Your task to perform on an android device: When is my next meeting? Image 0: 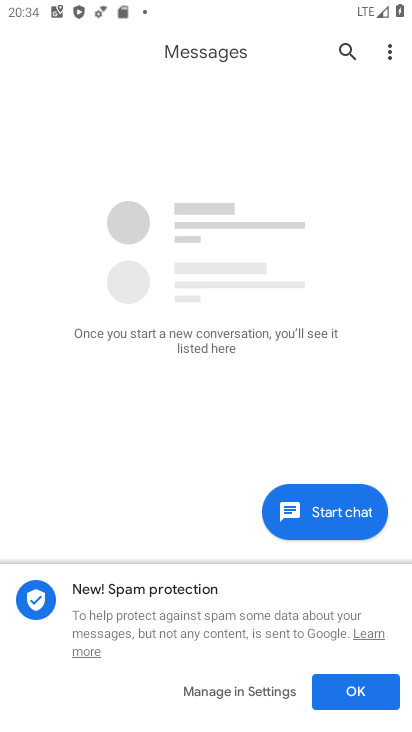
Step 0: press home button
Your task to perform on an android device: When is my next meeting? Image 1: 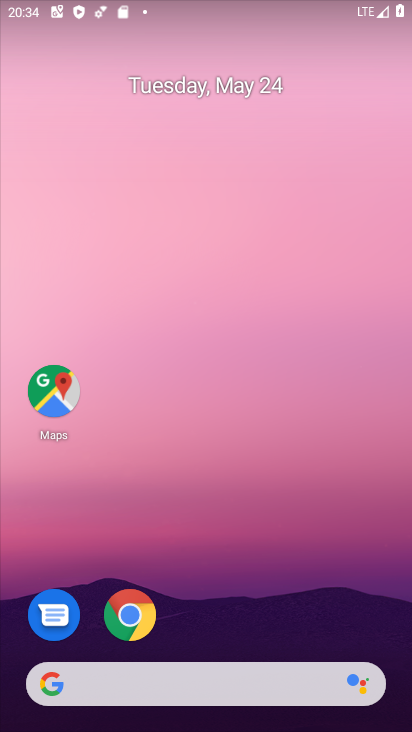
Step 1: drag from (236, 596) to (223, 230)
Your task to perform on an android device: When is my next meeting? Image 2: 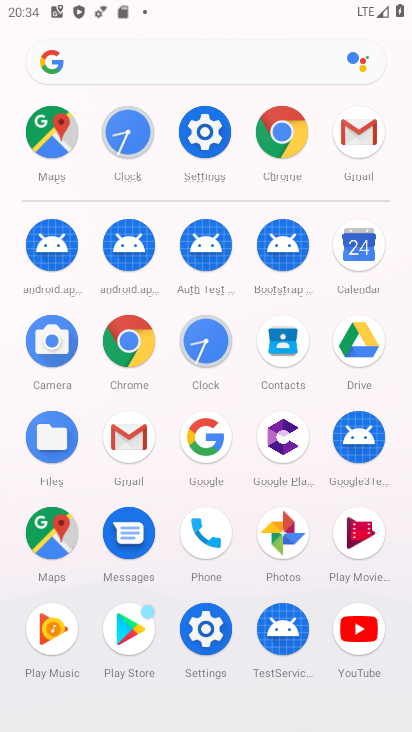
Step 2: click (363, 241)
Your task to perform on an android device: When is my next meeting? Image 3: 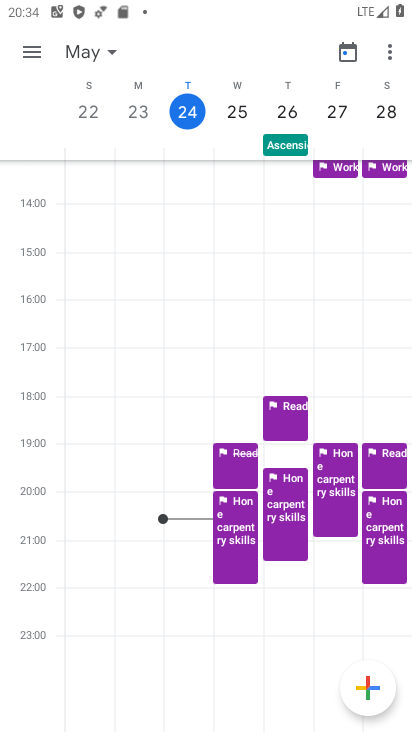
Step 3: click (31, 57)
Your task to perform on an android device: When is my next meeting? Image 4: 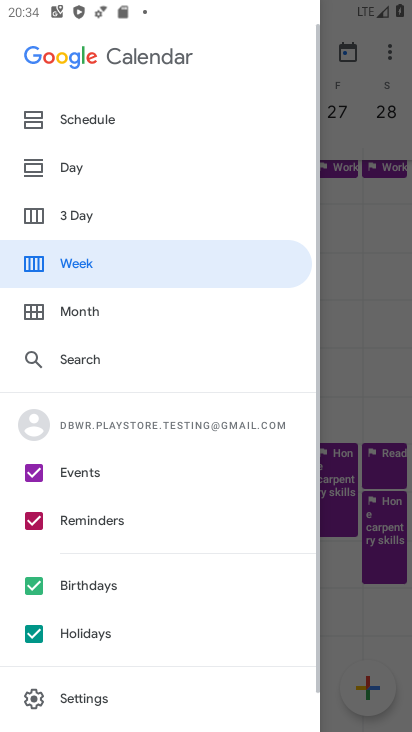
Step 4: click (108, 308)
Your task to perform on an android device: When is my next meeting? Image 5: 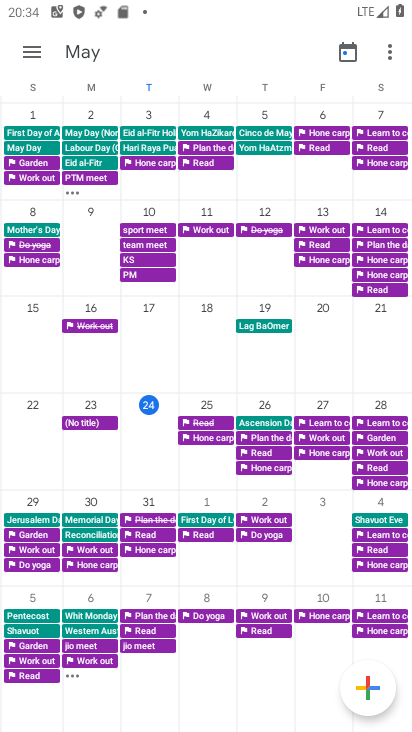
Step 5: click (264, 440)
Your task to perform on an android device: When is my next meeting? Image 6: 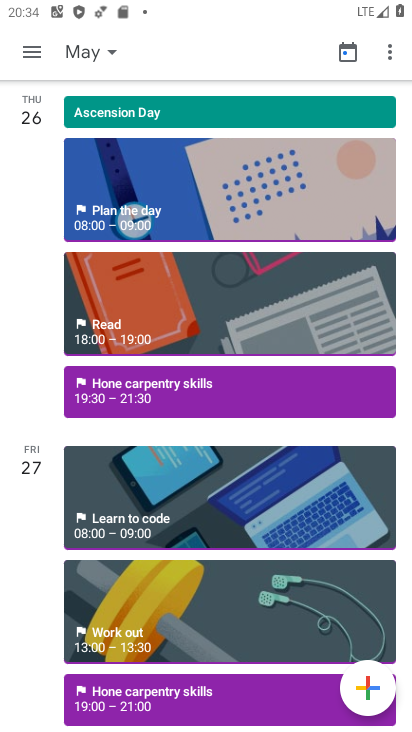
Step 6: task complete